Your task to perform on an android device: Open the calendar and show me this week's events Image 0: 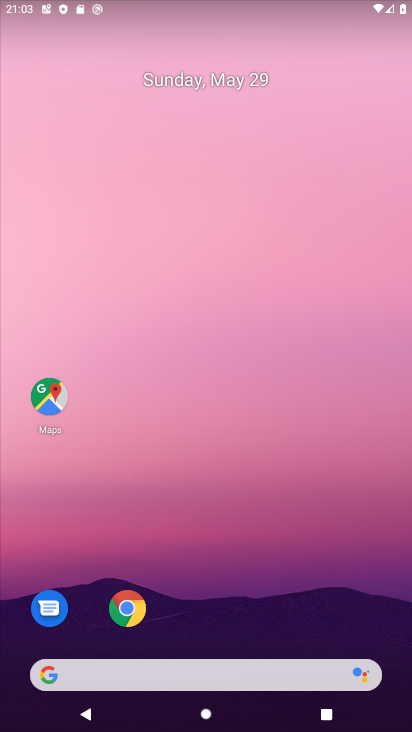
Step 0: drag from (352, 590) to (363, 192)
Your task to perform on an android device: Open the calendar and show me this week's events Image 1: 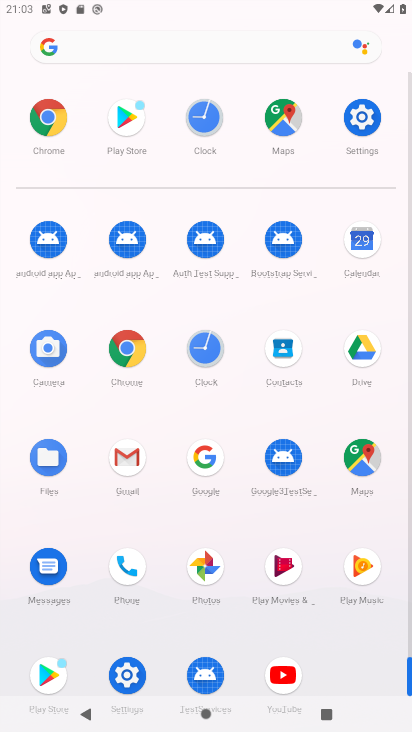
Step 1: click (369, 240)
Your task to perform on an android device: Open the calendar and show me this week's events Image 2: 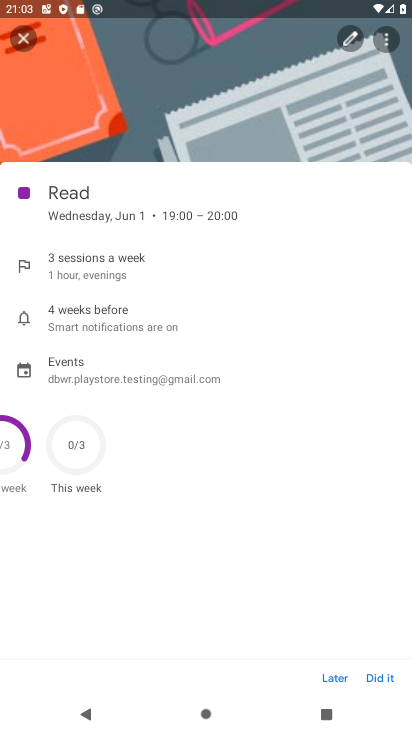
Step 2: click (29, 43)
Your task to perform on an android device: Open the calendar and show me this week's events Image 3: 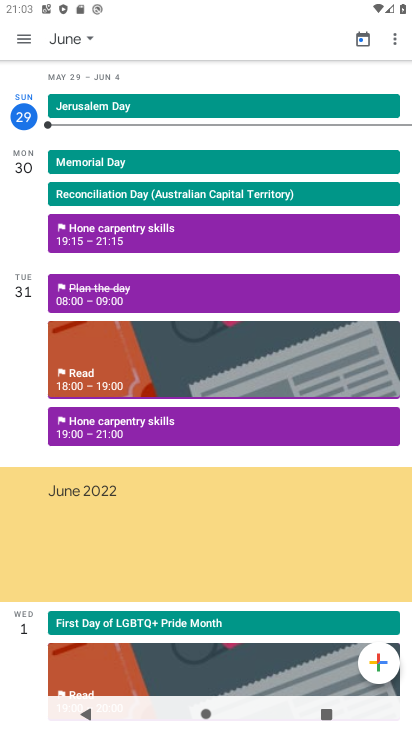
Step 3: task complete